Your task to perform on an android device: Go to location settings Image 0: 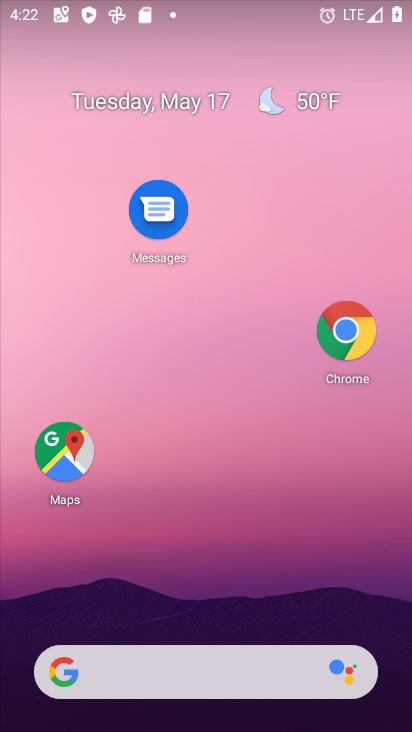
Step 0: drag from (246, 591) to (199, 7)
Your task to perform on an android device: Go to location settings Image 1: 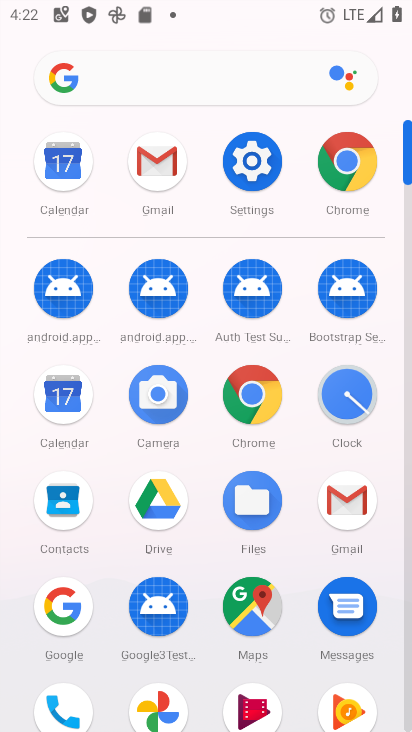
Step 1: click (266, 168)
Your task to perform on an android device: Go to location settings Image 2: 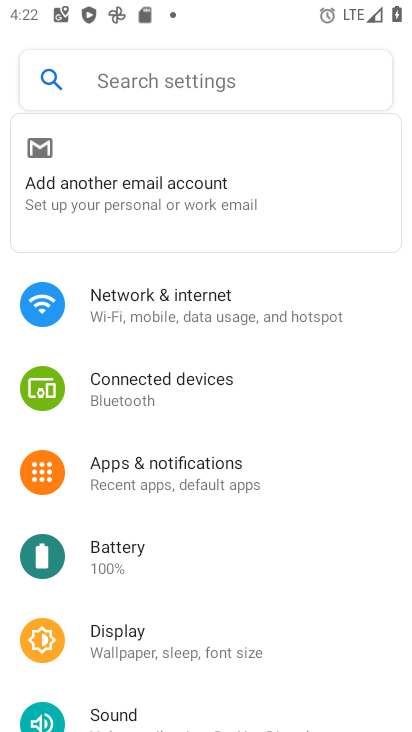
Step 2: drag from (212, 537) to (204, 388)
Your task to perform on an android device: Go to location settings Image 3: 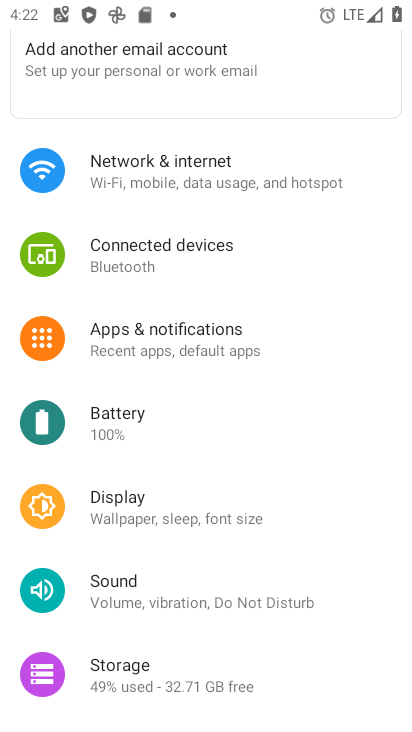
Step 3: drag from (204, 643) to (157, 365)
Your task to perform on an android device: Go to location settings Image 4: 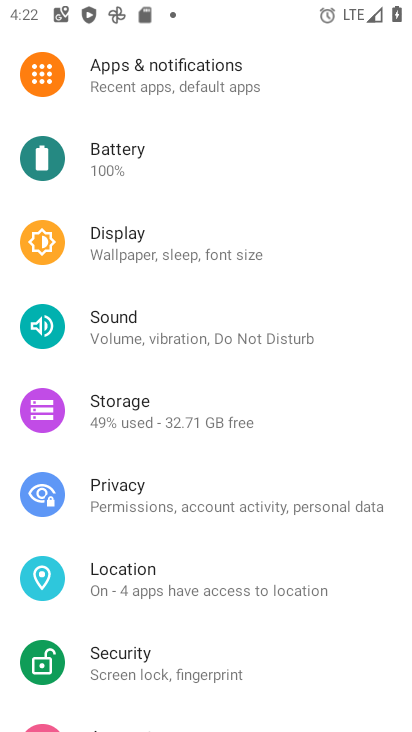
Step 4: click (189, 599)
Your task to perform on an android device: Go to location settings Image 5: 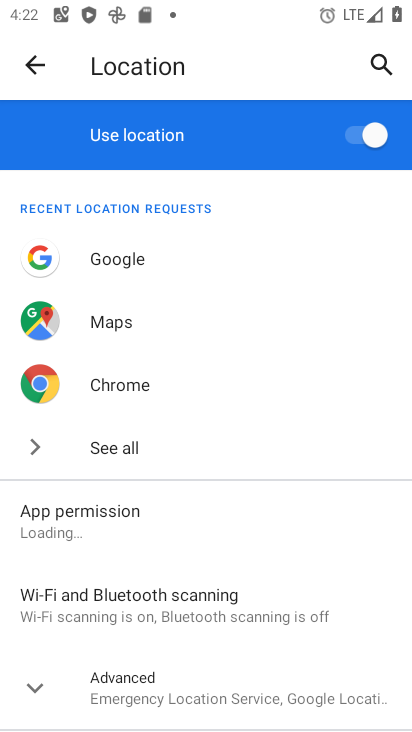
Step 5: task complete